Your task to perform on an android device: Search for Italian restaurants on Maps Image 0: 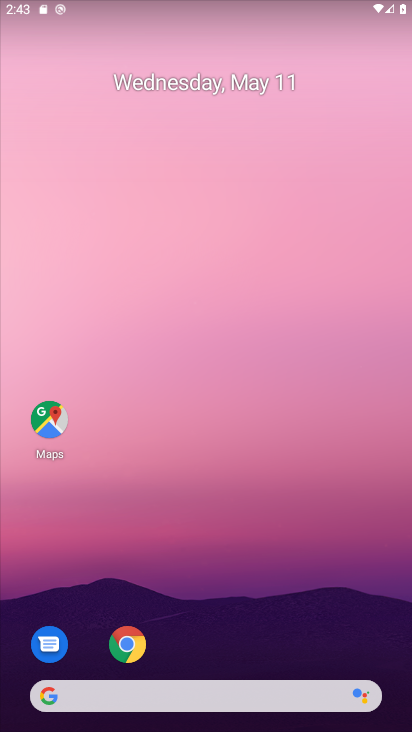
Step 0: click (47, 406)
Your task to perform on an android device: Search for Italian restaurants on Maps Image 1: 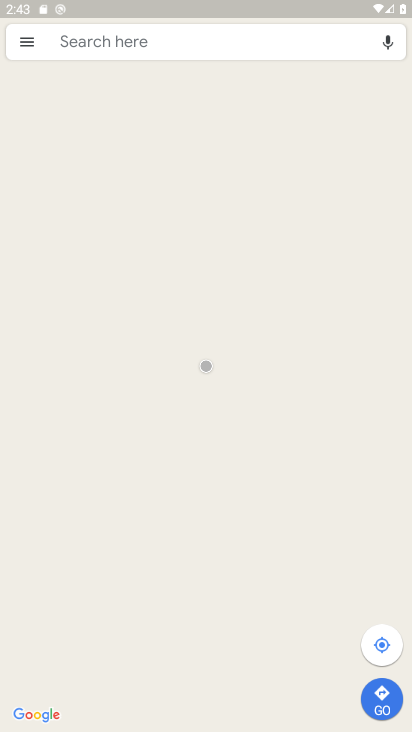
Step 1: click (128, 43)
Your task to perform on an android device: Search for Italian restaurants on Maps Image 2: 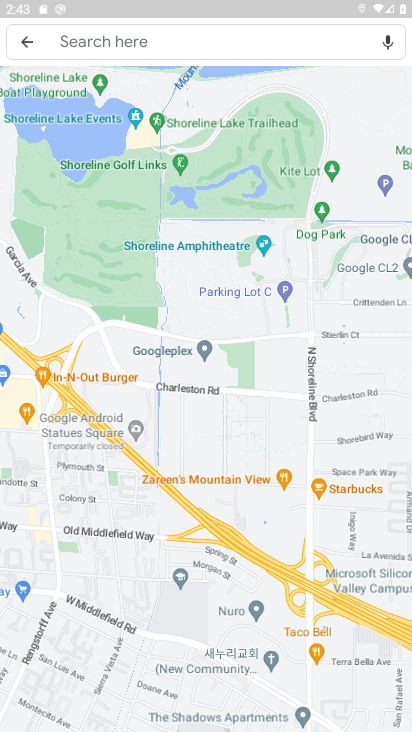
Step 2: click (177, 45)
Your task to perform on an android device: Search for Italian restaurants on Maps Image 3: 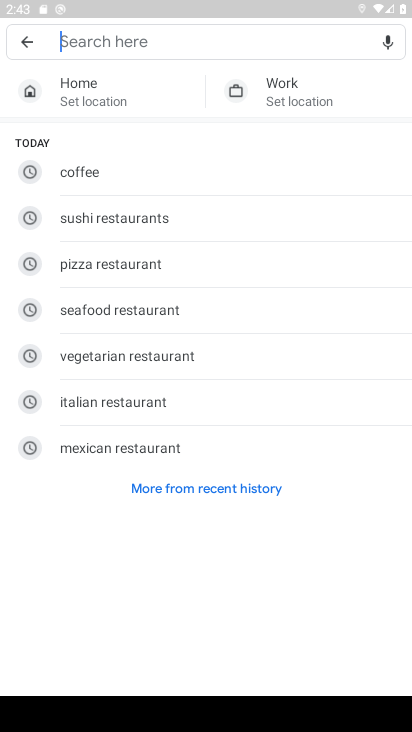
Step 3: click (91, 149)
Your task to perform on an android device: Search for Italian restaurants on Maps Image 4: 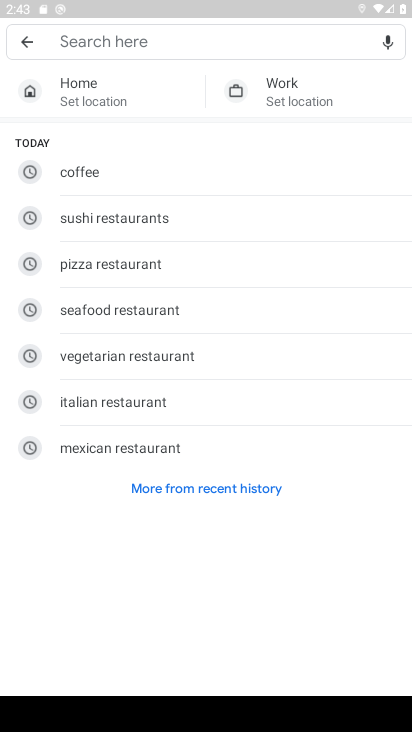
Step 4: click (77, 397)
Your task to perform on an android device: Search for Italian restaurants on Maps Image 5: 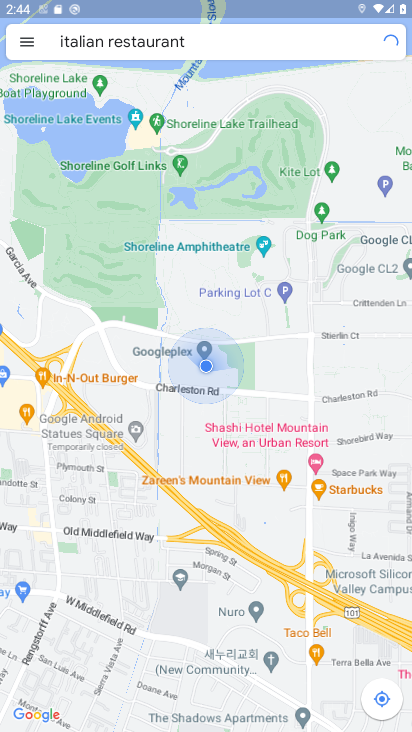
Step 5: task complete